Your task to perform on an android device: delete the emails in spam in the gmail app Image 0: 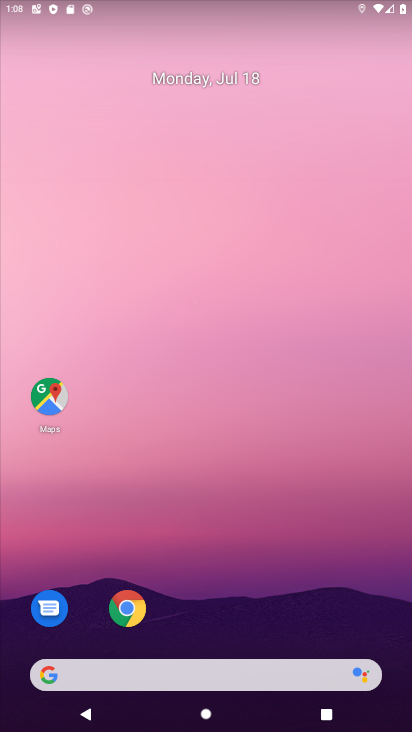
Step 0: drag from (341, 639) to (250, 120)
Your task to perform on an android device: delete the emails in spam in the gmail app Image 1: 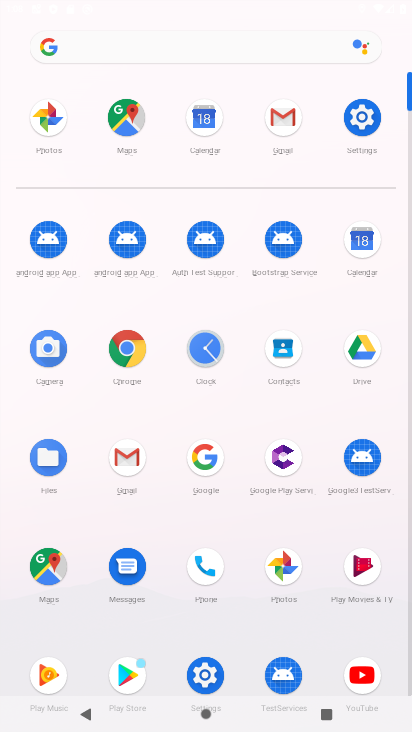
Step 1: click (283, 121)
Your task to perform on an android device: delete the emails in spam in the gmail app Image 2: 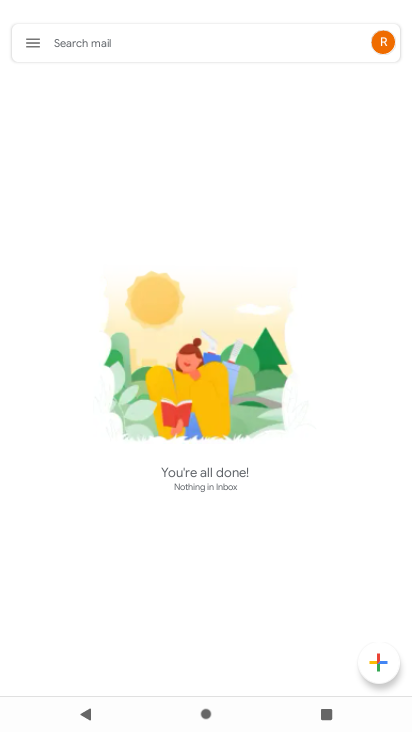
Step 2: click (30, 52)
Your task to perform on an android device: delete the emails in spam in the gmail app Image 3: 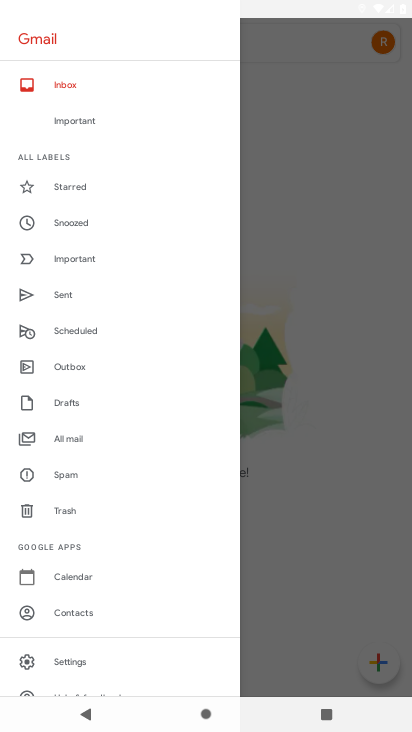
Step 3: click (98, 470)
Your task to perform on an android device: delete the emails in spam in the gmail app Image 4: 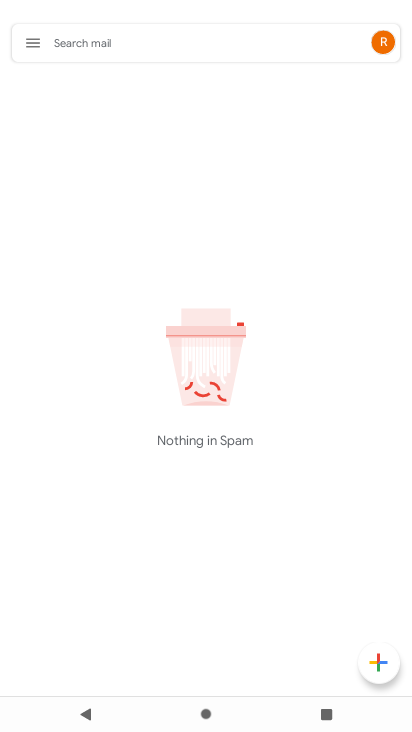
Step 4: task complete